Your task to perform on an android device: Open wifi settings Image 0: 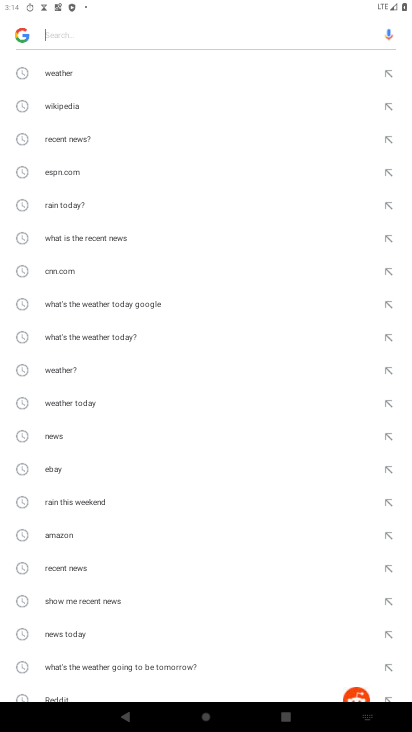
Step 0: press home button
Your task to perform on an android device: Open wifi settings Image 1: 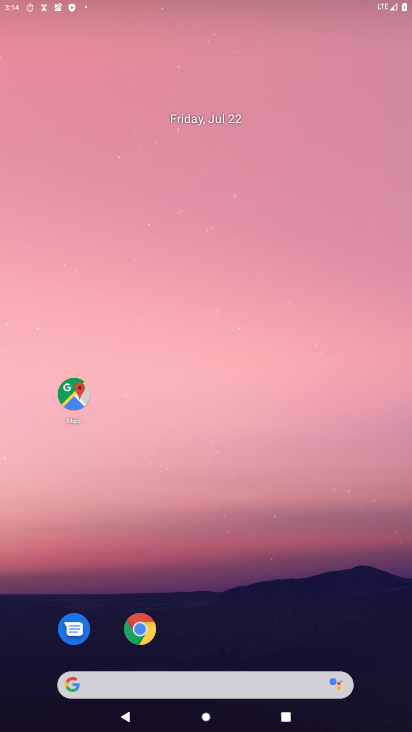
Step 1: drag from (269, 699) to (409, 82)
Your task to perform on an android device: Open wifi settings Image 2: 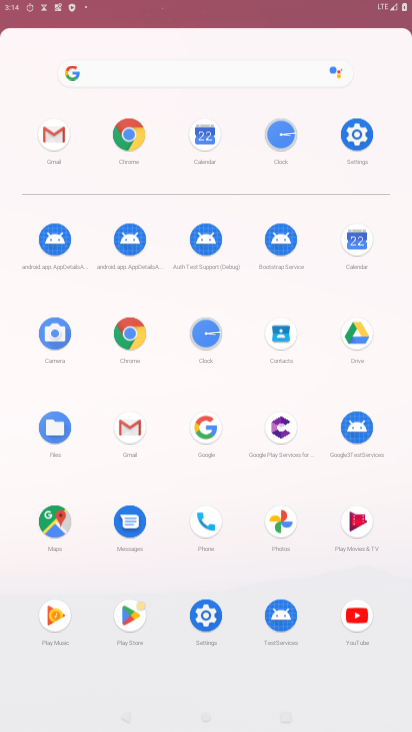
Step 2: click (363, 91)
Your task to perform on an android device: Open wifi settings Image 3: 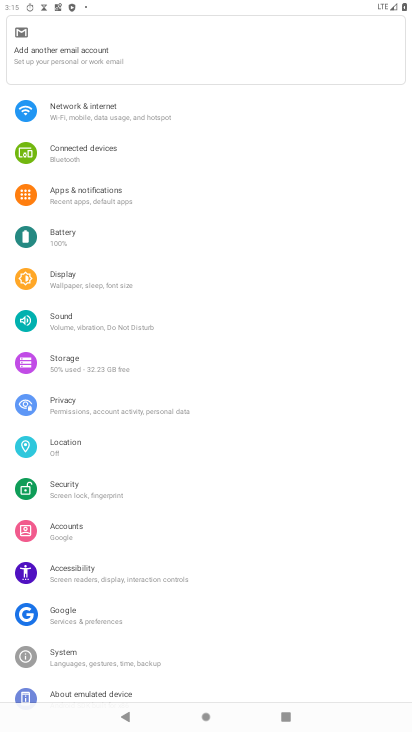
Step 3: click (159, 97)
Your task to perform on an android device: Open wifi settings Image 4: 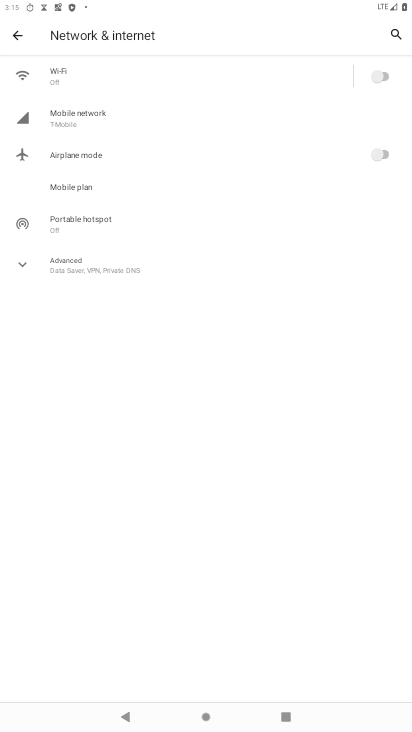
Step 4: click (95, 64)
Your task to perform on an android device: Open wifi settings Image 5: 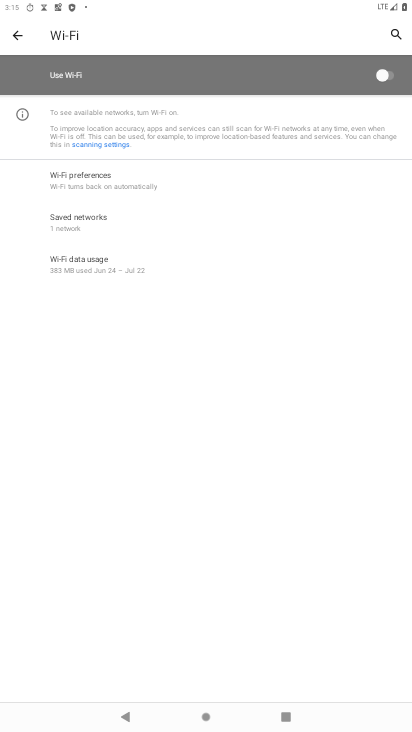
Step 5: task complete